Your task to perform on an android device: turn off translation in the chrome app Image 0: 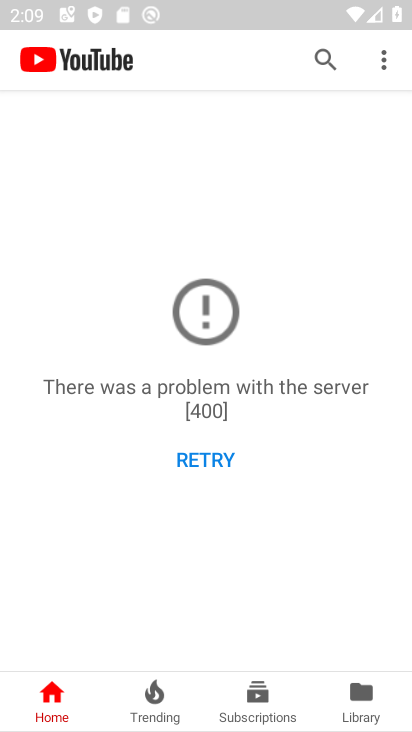
Step 0: press home button
Your task to perform on an android device: turn off translation in the chrome app Image 1: 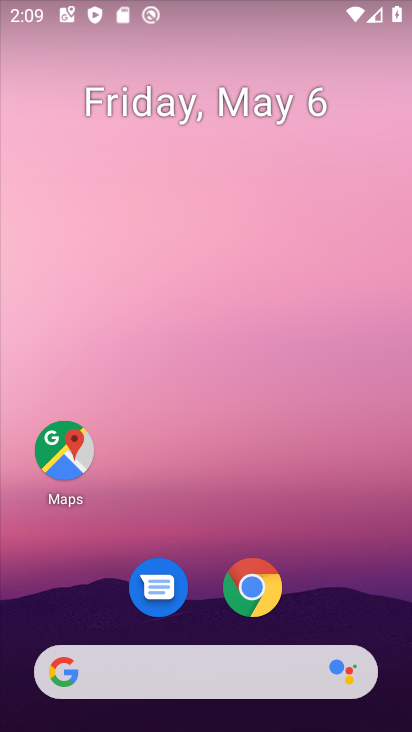
Step 1: drag from (311, 520) to (289, 19)
Your task to perform on an android device: turn off translation in the chrome app Image 2: 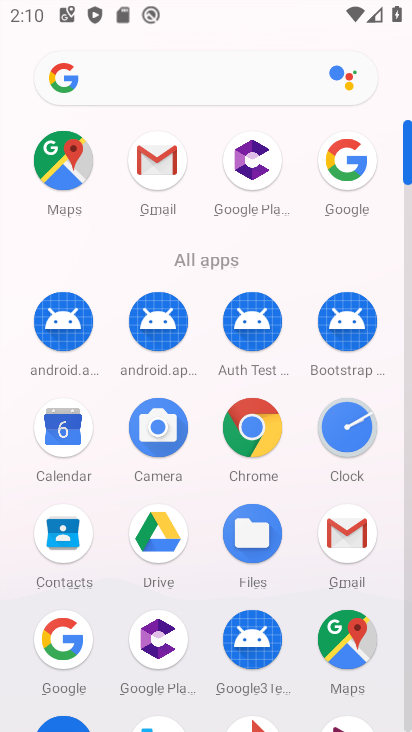
Step 2: click (258, 428)
Your task to perform on an android device: turn off translation in the chrome app Image 3: 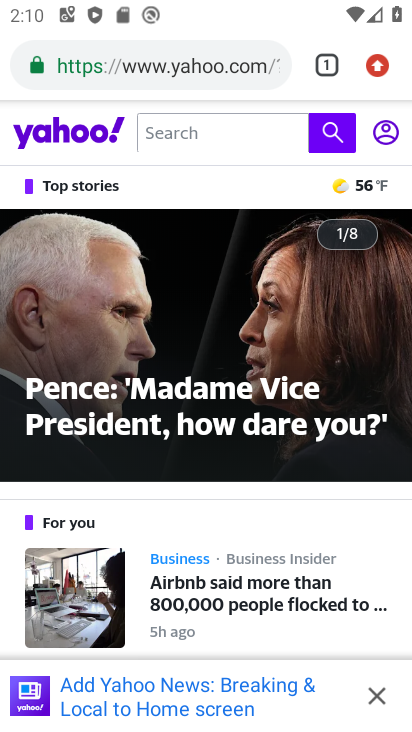
Step 3: click (381, 64)
Your task to perform on an android device: turn off translation in the chrome app Image 4: 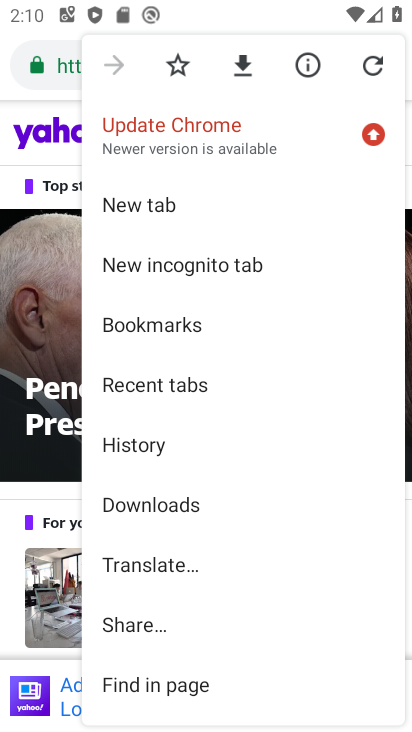
Step 4: click (166, 558)
Your task to perform on an android device: turn off translation in the chrome app Image 5: 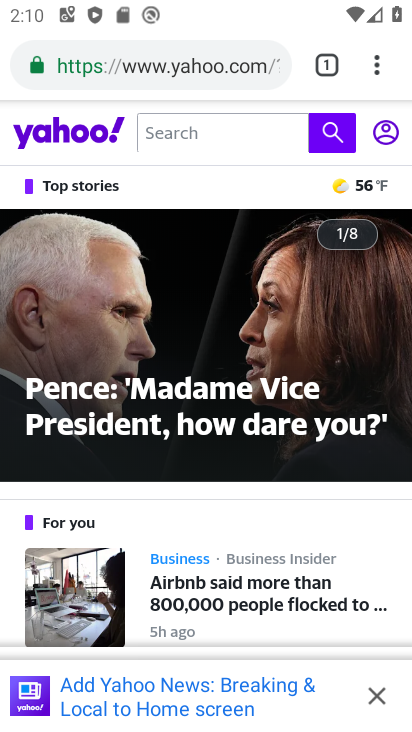
Step 5: click (375, 60)
Your task to perform on an android device: turn off translation in the chrome app Image 6: 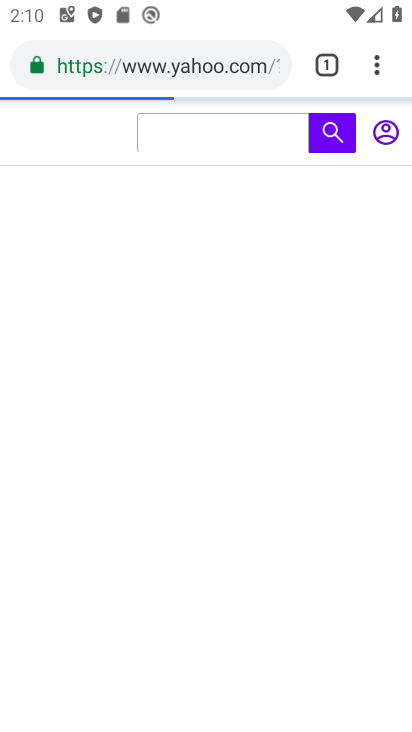
Step 6: drag from (375, 59) to (198, 633)
Your task to perform on an android device: turn off translation in the chrome app Image 7: 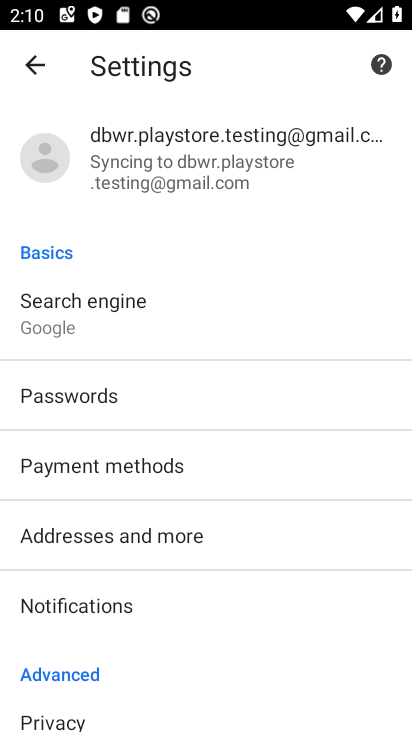
Step 7: drag from (200, 636) to (251, 185)
Your task to perform on an android device: turn off translation in the chrome app Image 8: 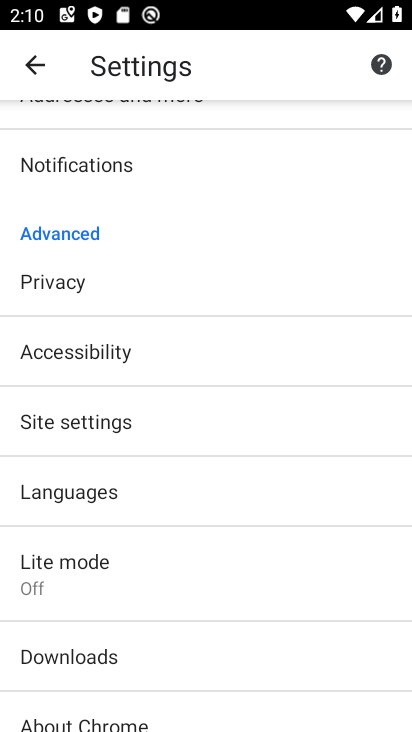
Step 8: click (201, 493)
Your task to perform on an android device: turn off translation in the chrome app Image 9: 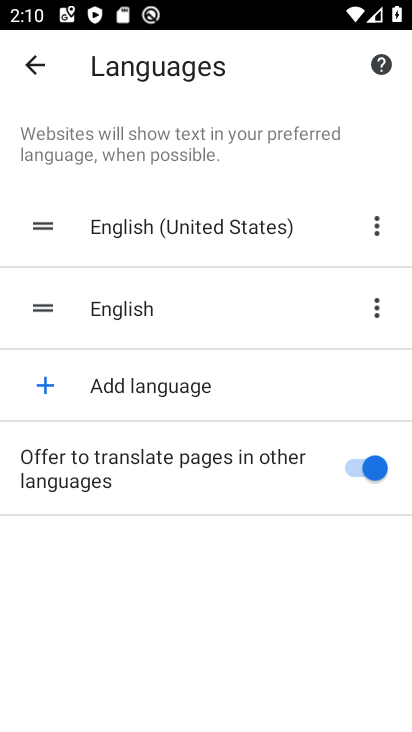
Step 9: click (350, 464)
Your task to perform on an android device: turn off translation in the chrome app Image 10: 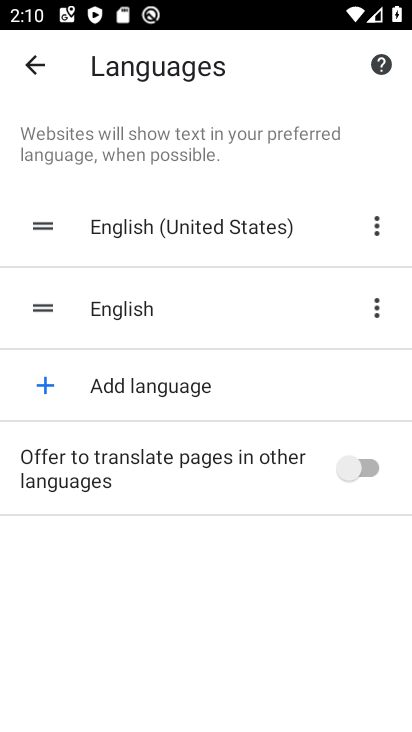
Step 10: task complete